Your task to perform on an android device: open chrome privacy settings Image 0: 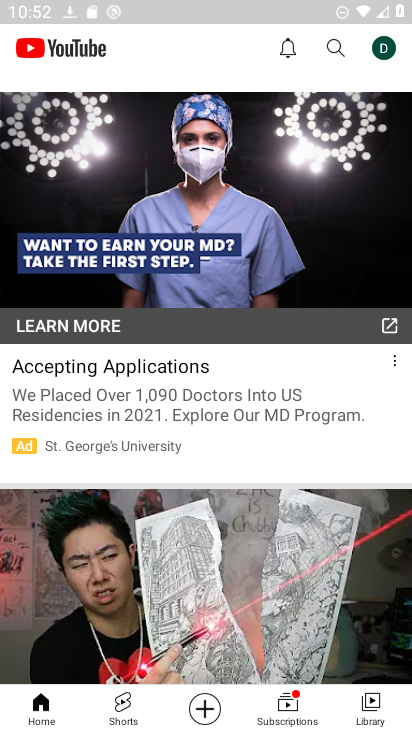
Step 0: press home button
Your task to perform on an android device: open chrome privacy settings Image 1: 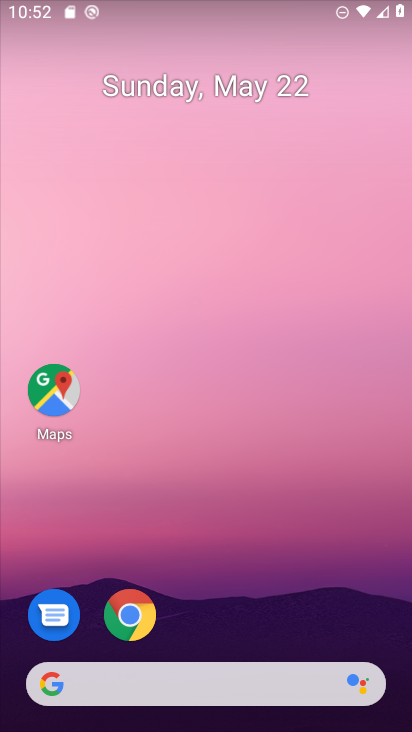
Step 1: drag from (240, 596) to (248, 520)
Your task to perform on an android device: open chrome privacy settings Image 2: 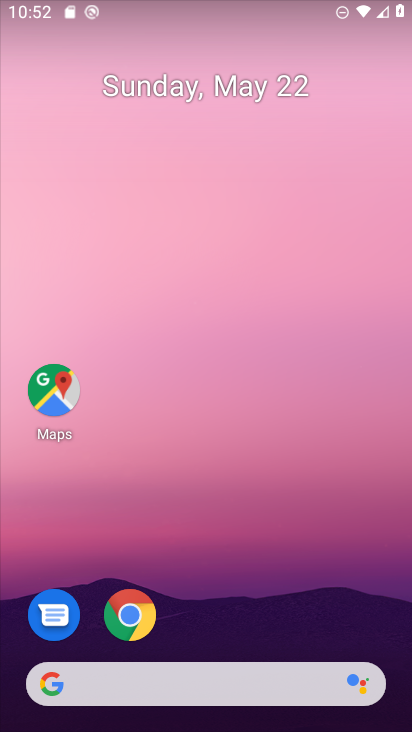
Step 2: click (127, 609)
Your task to perform on an android device: open chrome privacy settings Image 3: 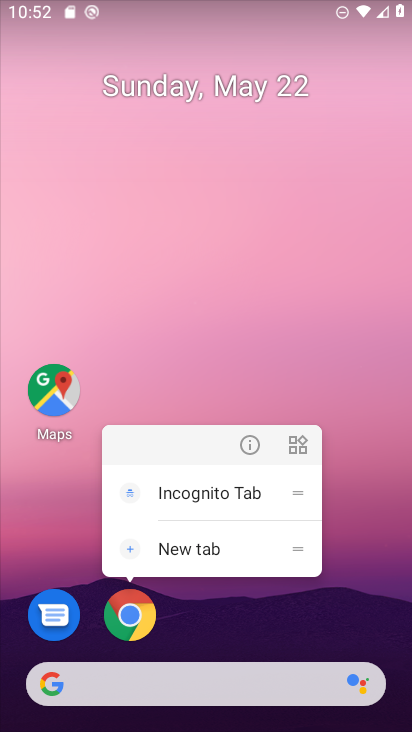
Step 3: click (136, 615)
Your task to perform on an android device: open chrome privacy settings Image 4: 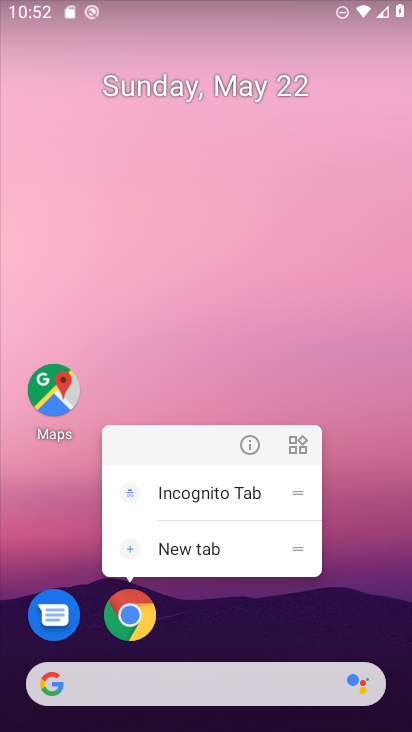
Step 4: click (350, 610)
Your task to perform on an android device: open chrome privacy settings Image 5: 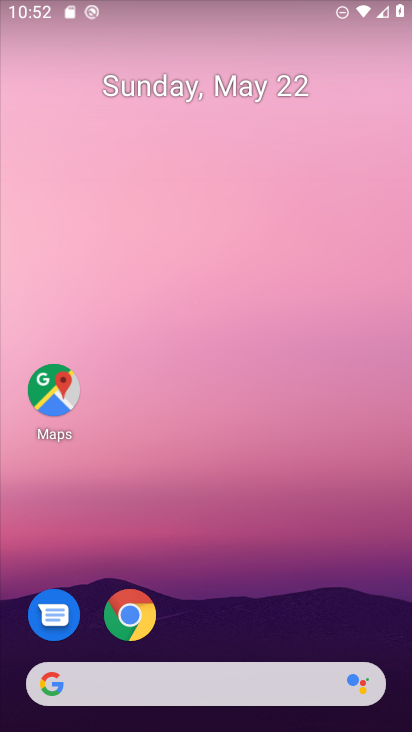
Step 5: drag from (347, 596) to (297, 63)
Your task to perform on an android device: open chrome privacy settings Image 6: 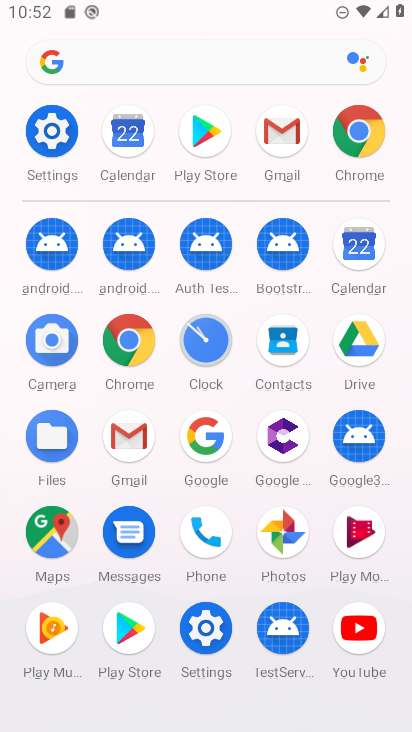
Step 6: click (354, 125)
Your task to perform on an android device: open chrome privacy settings Image 7: 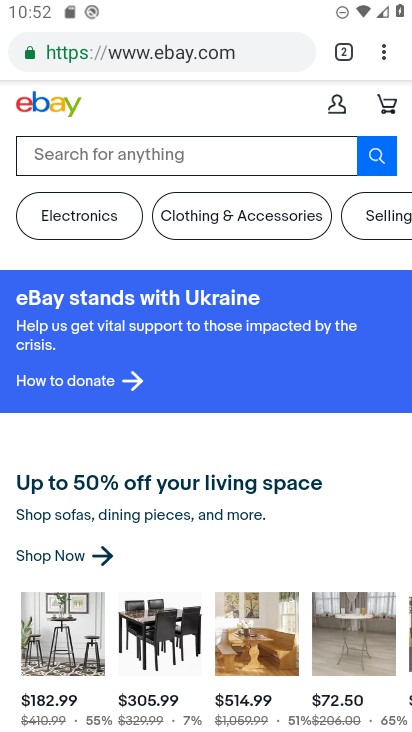
Step 7: drag from (395, 50) to (248, 577)
Your task to perform on an android device: open chrome privacy settings Image 8: 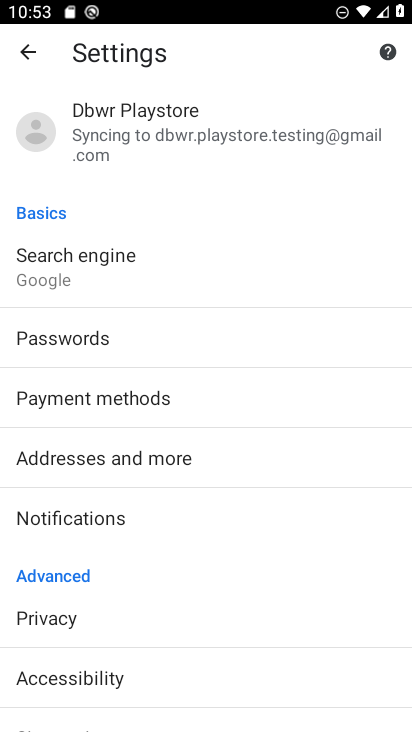
Step 8: click (63, 609)
Your task to perform on an android device: open chrome privacy settings Image 9: 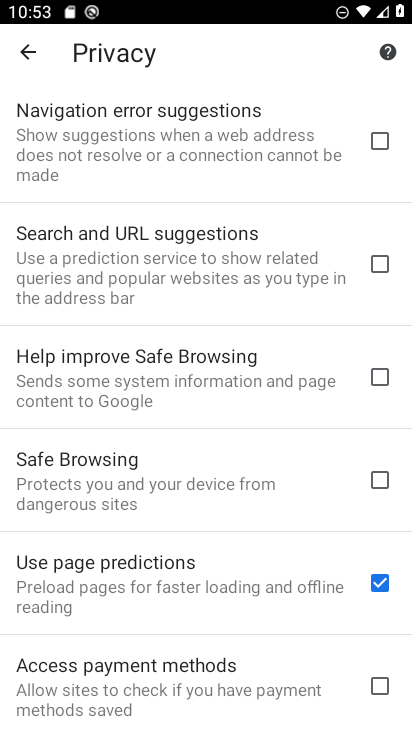
Step 9: task complete